Your task to perform on an android device: Do I have any events today? Image 0: 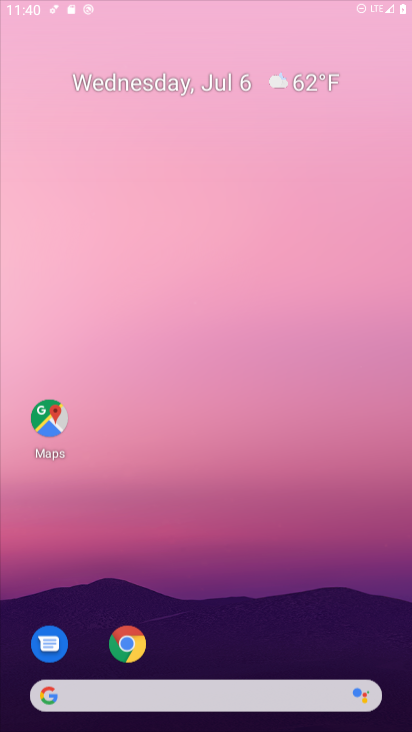
Step 0: press home button
Your task to perform on an android device: Do I have any events today? Image 1: 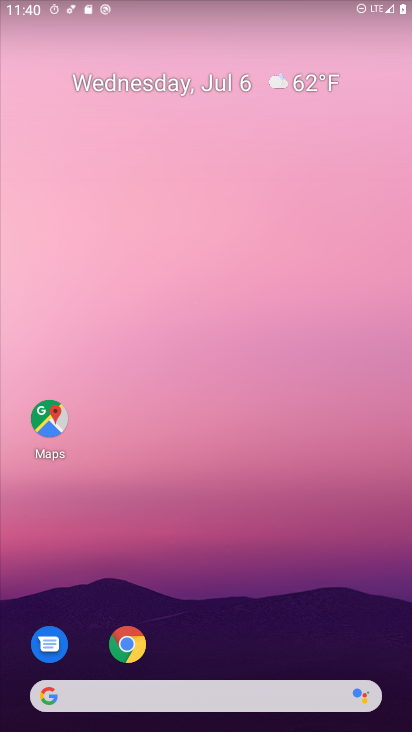
Step 1: drag from (265, 637) to (161, 17)
Your task to perform on an android device: Do I have any events today? Image 2: 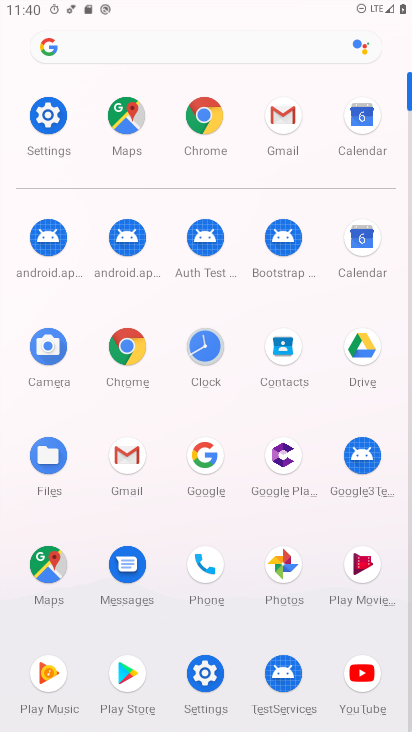
Step 2: click (360, 241)
Your task to perform on an android device: Do I have any events today? Image 3: 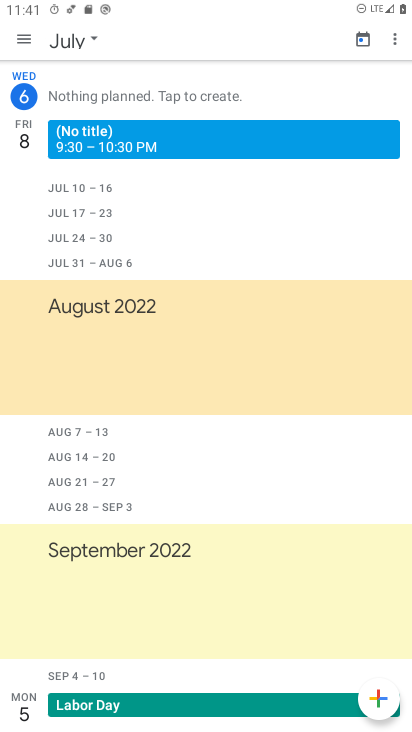
Step 3: task complete